Your task to perform on an android device: What's on my calendar today? Image 0: 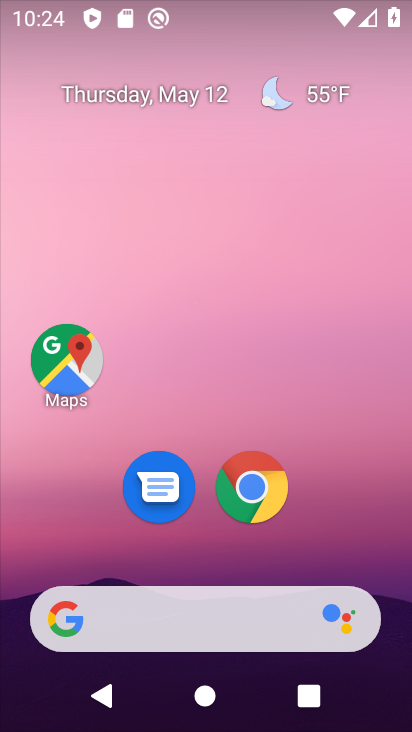
Step 0: drag from (375, 524) to (333, 9)
Your task to perform on an android device: What's on my calendar today? Image 1: 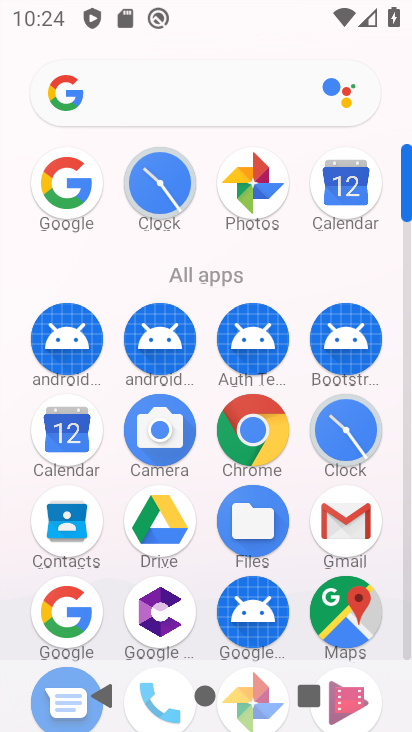
Step 1: click (343, 212)
Your task to perform on an android device: What's on my calendar today? Image 2: 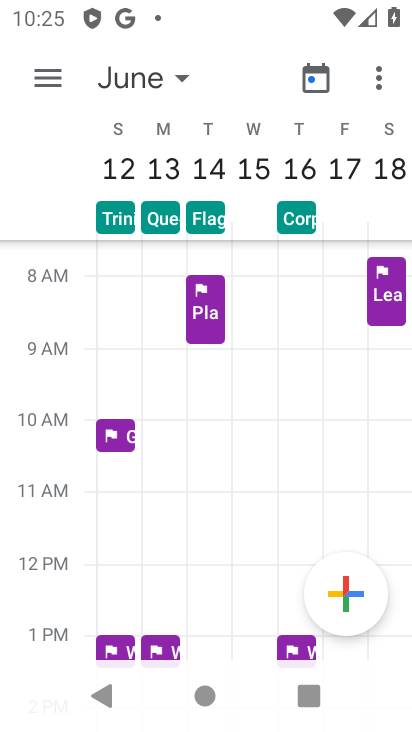
Step 2: click (315, 84)
Your task to perform on an android device: What's on my calendar today? Image 3: 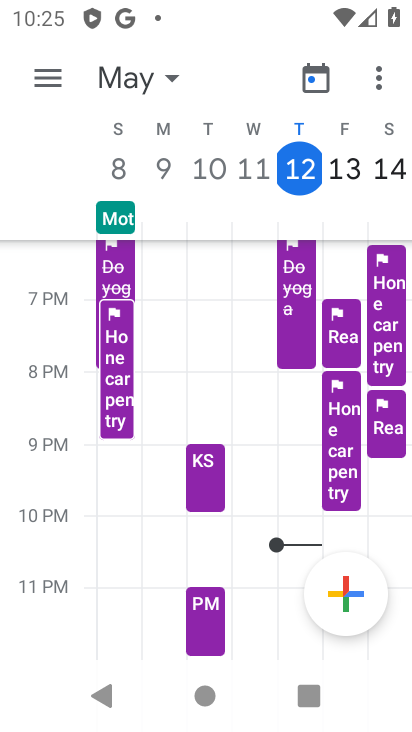
Step 3: click (44, 86)
Your task to perform on an android device: What's on my calendar today? Image 4: 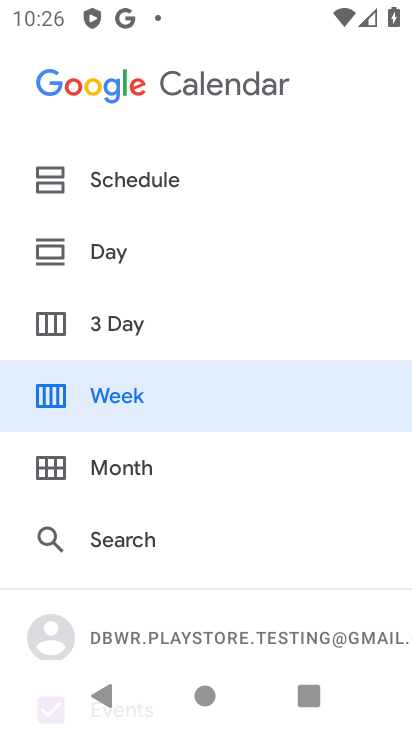
Step 4: click (90, 170)
Your task to perform on an android device: What's on my calendar today? Image 5: 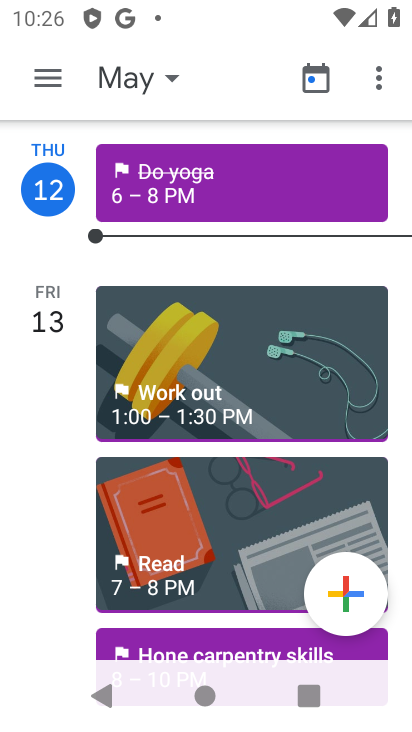
Step 5: click (181, 206)
Your task to perform on an android device: What's on my calendar today? Image 6: 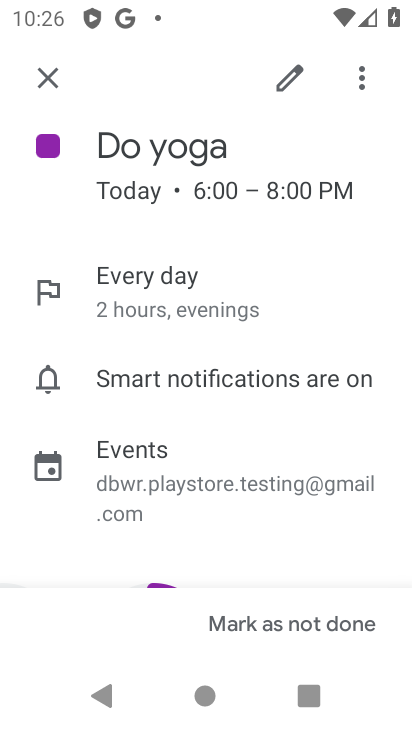
Step 6: task complete